Your task to perform on an android device: uninstall "Fetch Rewards" Image 0: 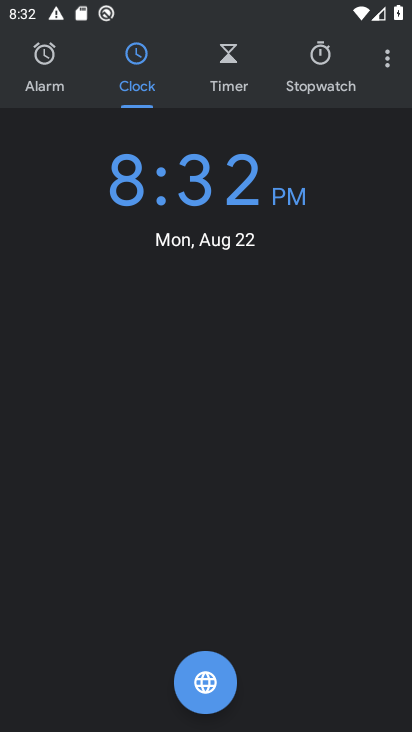
Step 0: press home button
Your task to perform on an android device: uninstall "Fetch Rewards" Image 1: 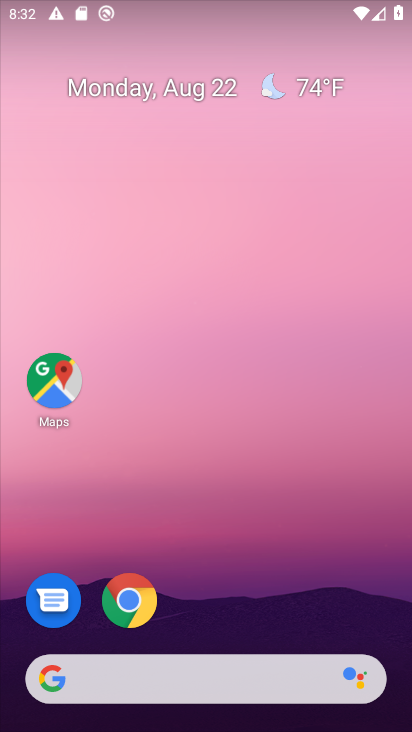
Step 1: drag from (227, 591) to (240, 142)
Your task to perform on an android device: uninstall "Fetch Rewards" Image 2: 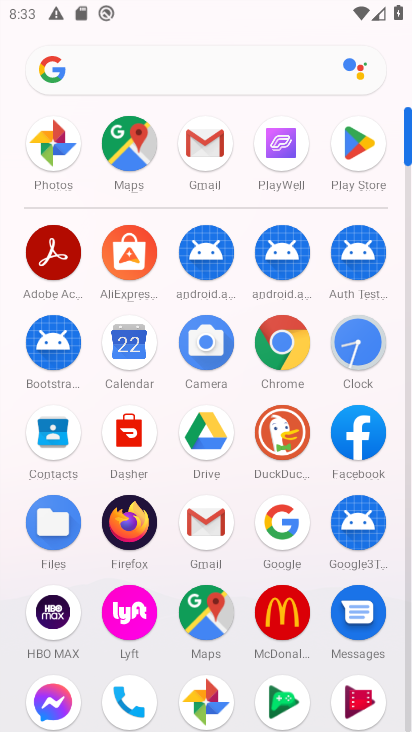
Step 2: click (356, 150)
Your task to perform on an android device: uninstall "Fetch Rewards" Image 3: 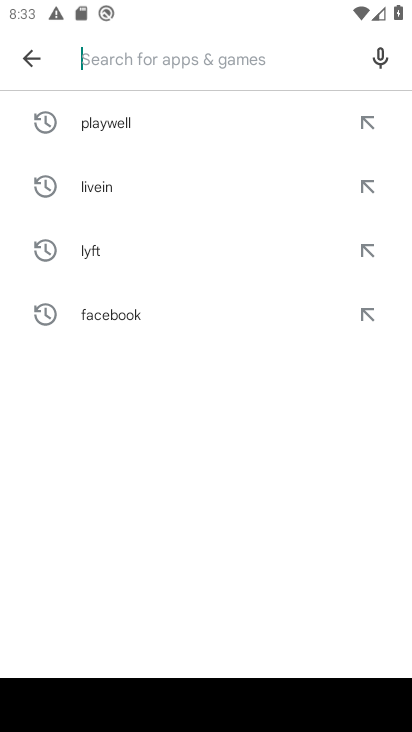
Step 3: click (273, 53)
Your task to perform on an android device: uninstall "Fetch Rewards" Image 4: 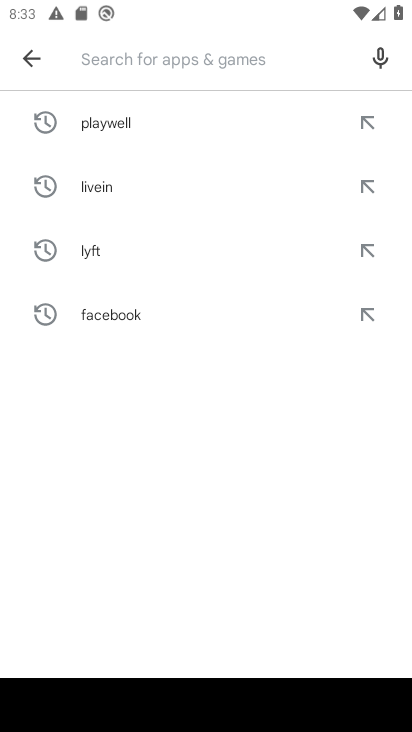
Step 4: type "Fetch Rewards"
Your task to perform on an android device: uninstall "Fetch Rewards" Image 5: 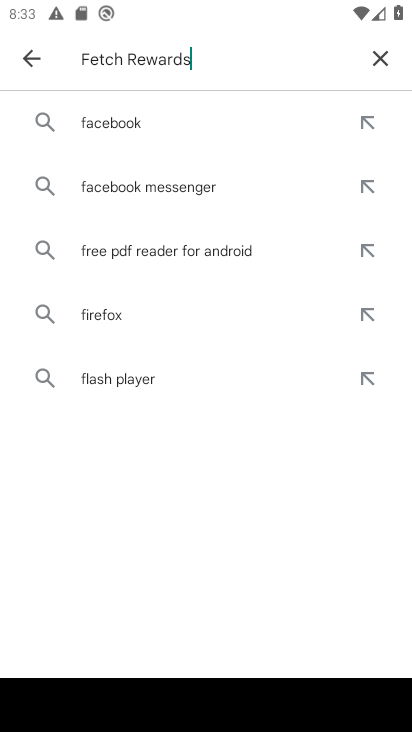
Step 5: type ""
Your task to perform on an android device: uninstall "Fetch Rewards" Image 6: 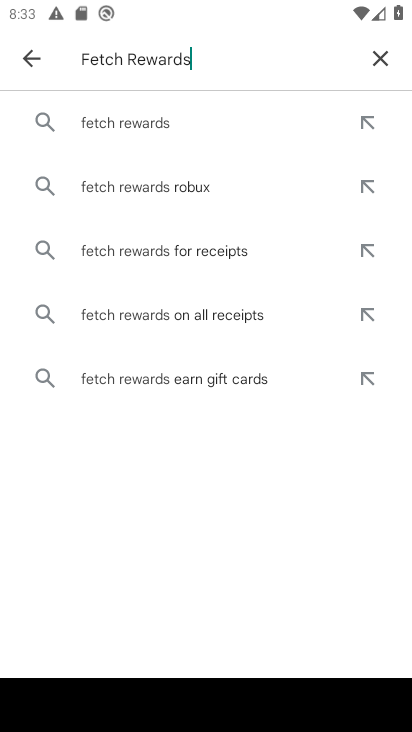
Step 6: click (182, 121)
Your task to perform on an android device: uninstall "Fetch Rewards" Image 7: 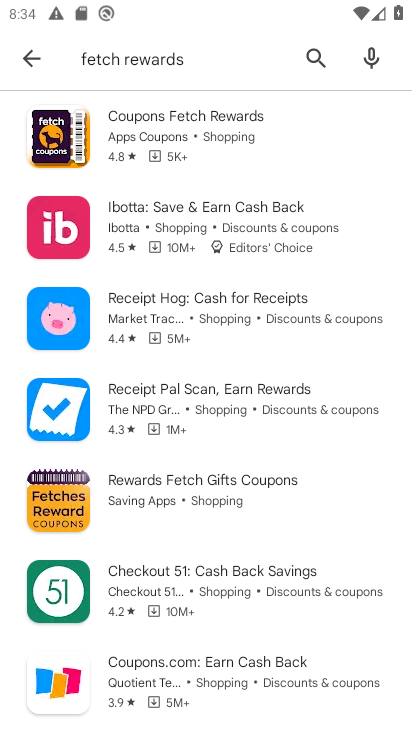
Step 7: task complete